Your task to perform on an android device: Go to Maps Image 0: 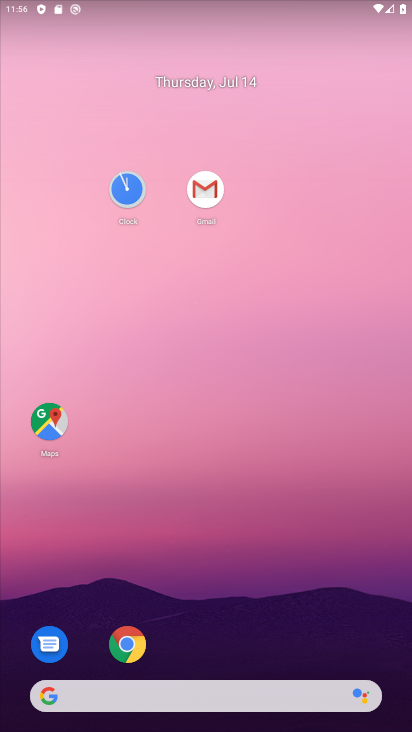
Step 0: click (50, 412)
Your task to perform on an android device: Go to Maps Image 1: 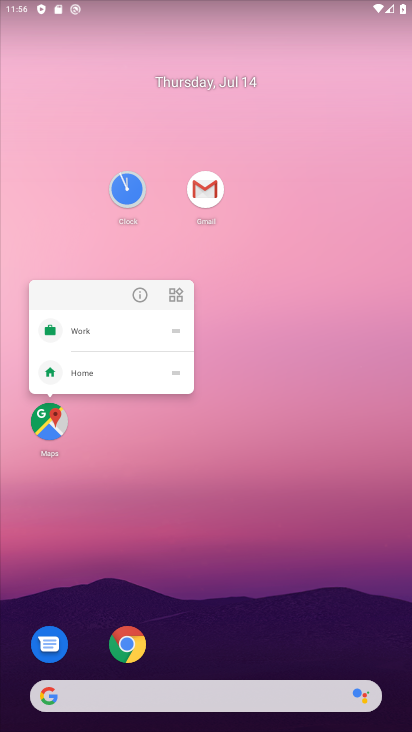
Step 1: click (50, 440)
Your task to perform on an android device: Go to Maps Image 2: 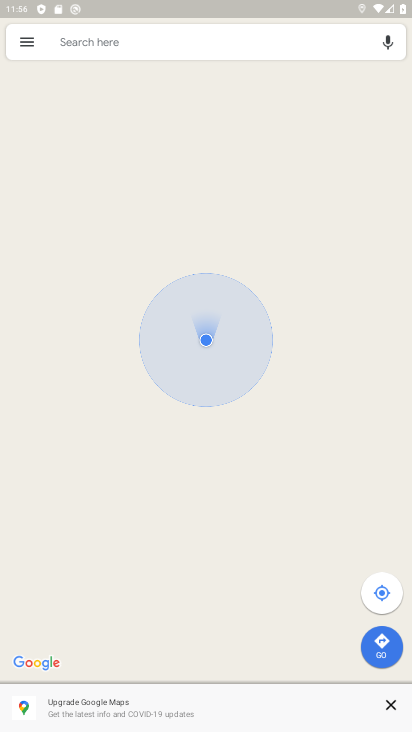
Step 2: task complete